Your task to perform on an android device: see tabs open on other devices in the chrome app Image 0: 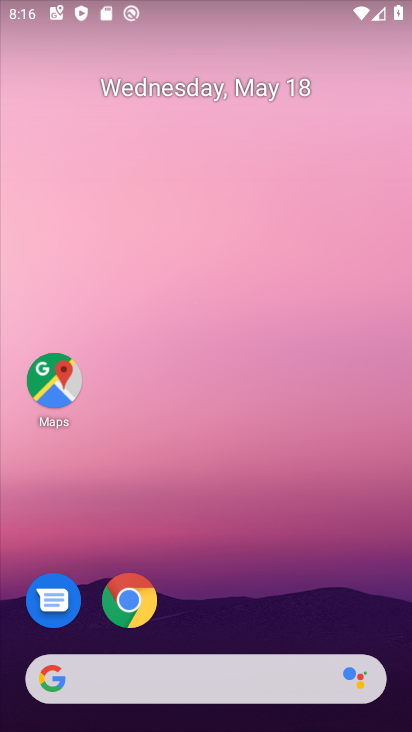
Step 0: click (131, 608)
Your task to perform on an android device: see tabs open on other devices in the chrome app Image 1: 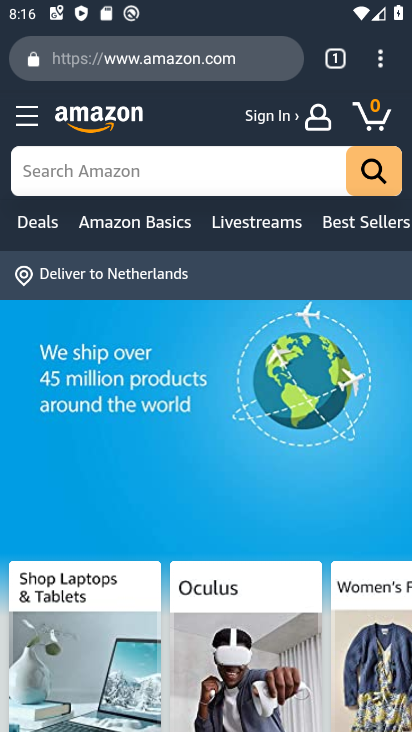
Step 1: task complete